Your task to perform on an android device: Open accessibility settings Image 0: 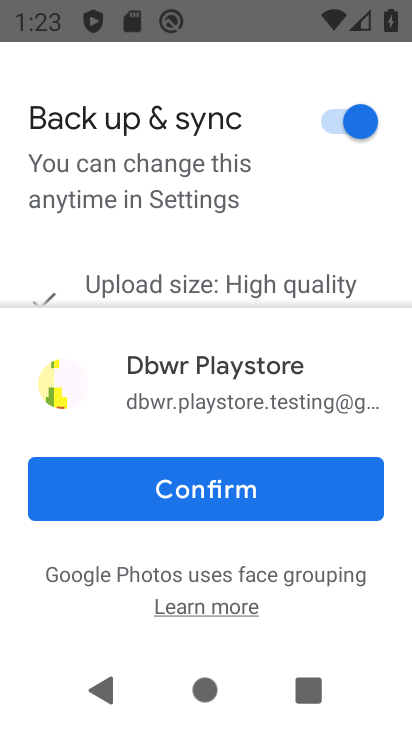
Step 0: press back button
Your task to perform on an android device: Open accessibility settings Image 1: 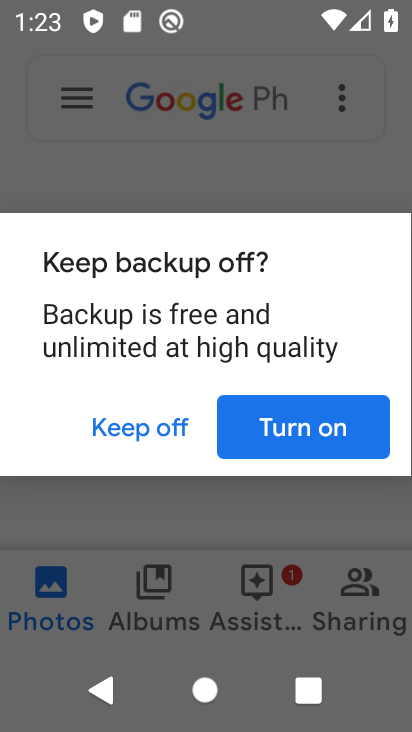
Step 1: press back button
Your task to perform on an android device: Open accessibility settings Image 2: 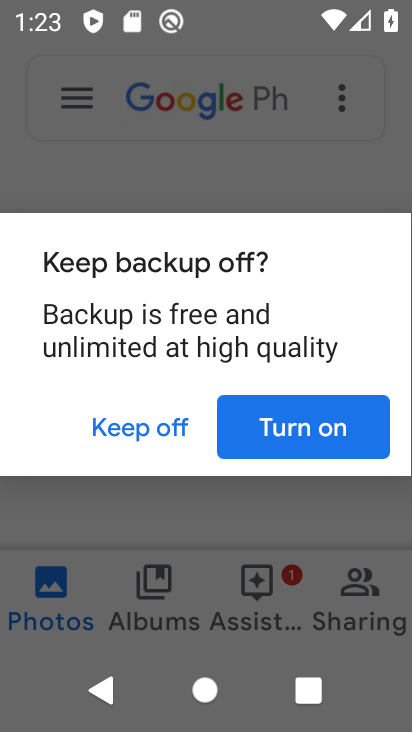
Step 2: press home button
Your task to perform on an android device: Open accessibility settings Image 3: 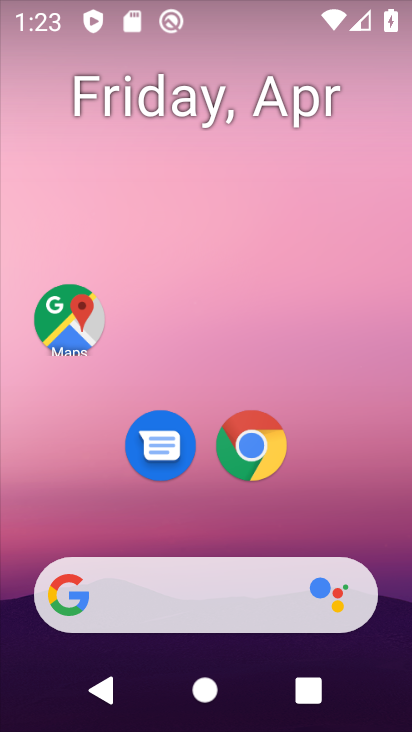
Step 3: drag from (219, 450) to (252, 84)
Your task to perform on an android device: Open accessibility settings Image 4: 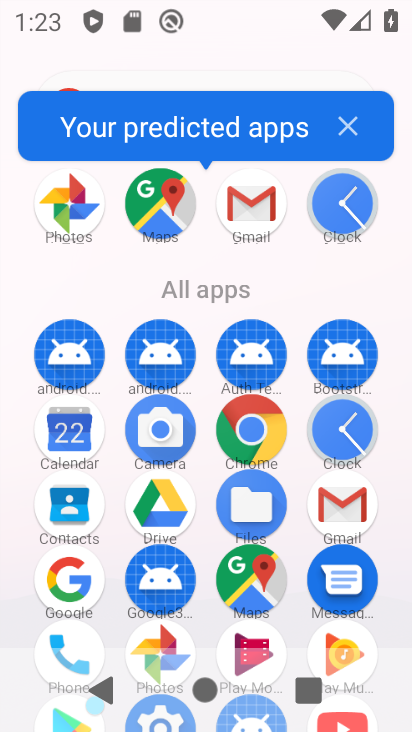
Step 4: drag from (155, 594) to (227, 138)
Your task to perform on an android device: Open accessibility settings Image 5: 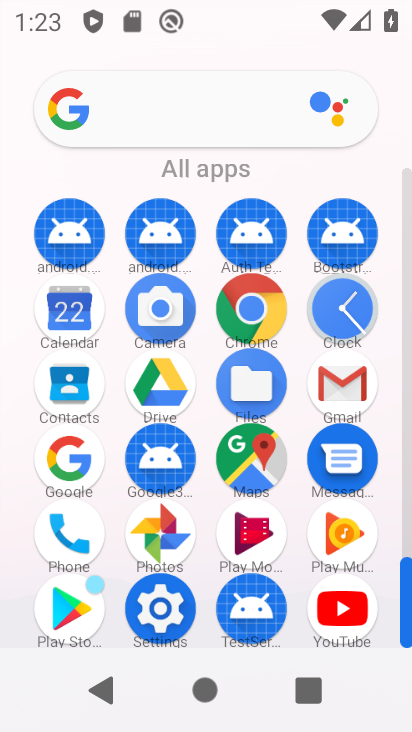
Step 5: click (160, 609)
Your task to perform on an android device: Open accessibility settings Image 6: 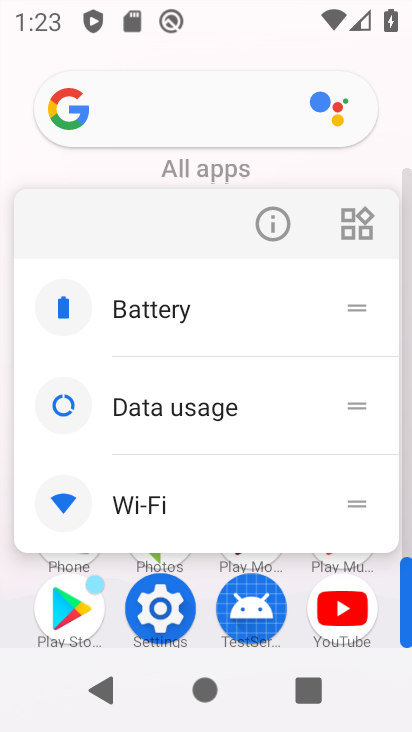
Step 6: click (160, 621)
Your task to perform on an android device: Open accessibility settings Image 7: 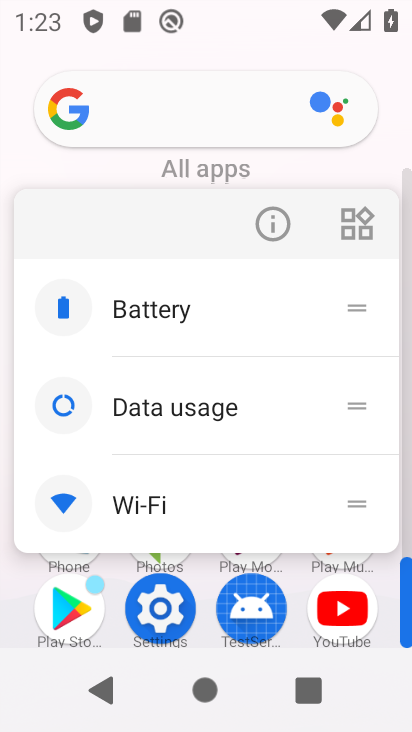
Step 7: click (172, 604)
Your task to perform on an android device: Open accessibility settings Image 8: 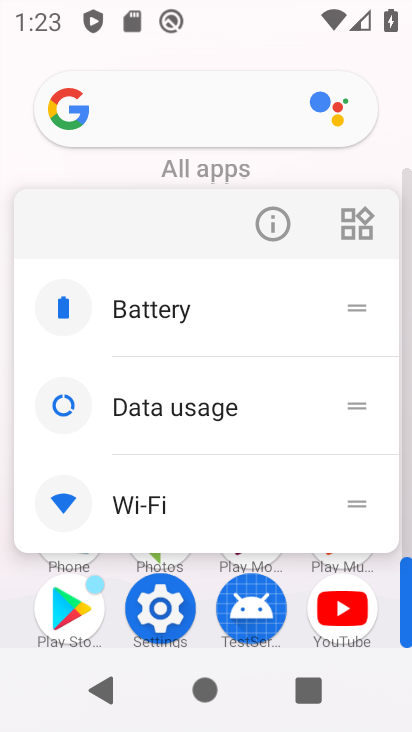
Step 8: click (176, 597)
Your task to perform on an android device: Open accessibility settings Image 9: 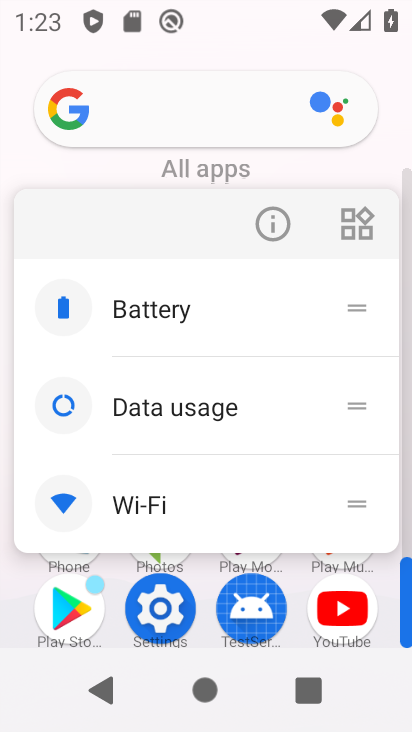
Step 9: click (171, 596)
Your task to perform on an android device: Open accessibility settings Image 10: 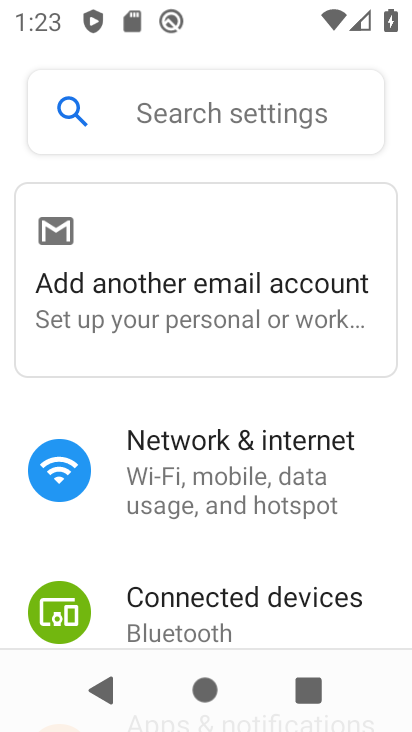
Step 10: drag from (235, 551) to (281, 117)
Your task to perform on an android device: Open accessibility settings Image 11: 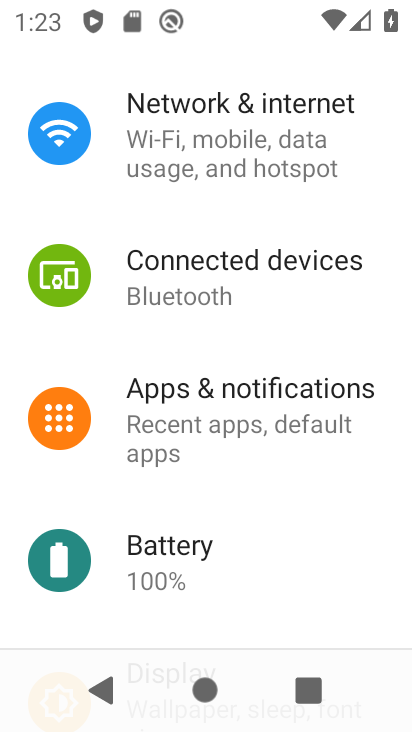
Step 11: drag from (234, 565) to (311, 130)
Your task to perform on an android device: Open accessibility settings Image 12: 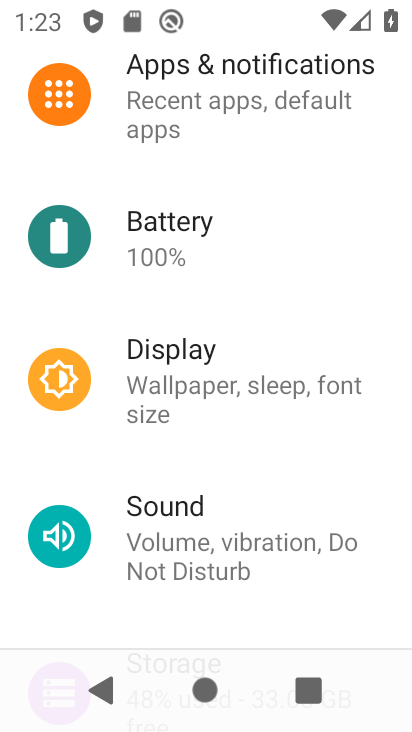
Step 12: drag from (218, 536) to (305, 73)
Your task to perform on an android device: Open accessibility settings Image 13: 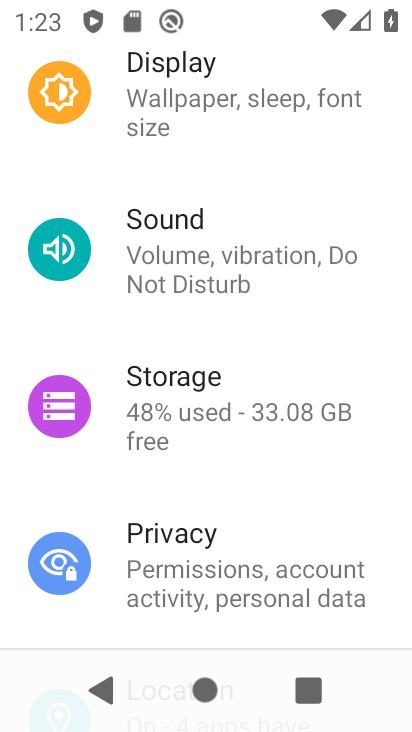
Step 13: drag from (212, 591) to (317, 86)
Your task to perform on an android device: Open accessibility settings Image 14: 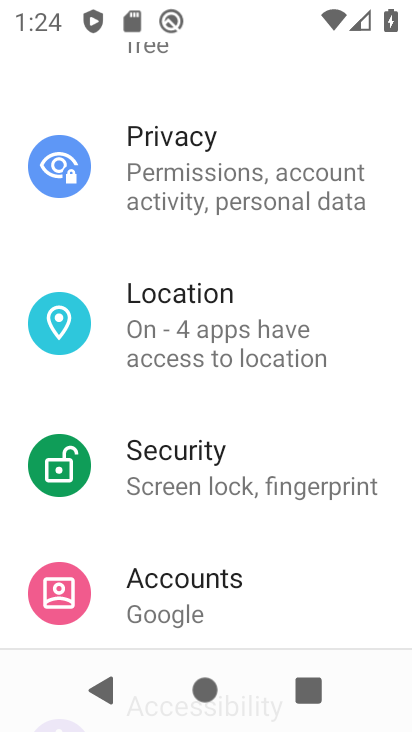
Step 14: drag from (218, 572) to (310, 124)
Your task to perform on an android device: Open accessibility settings Image 15: 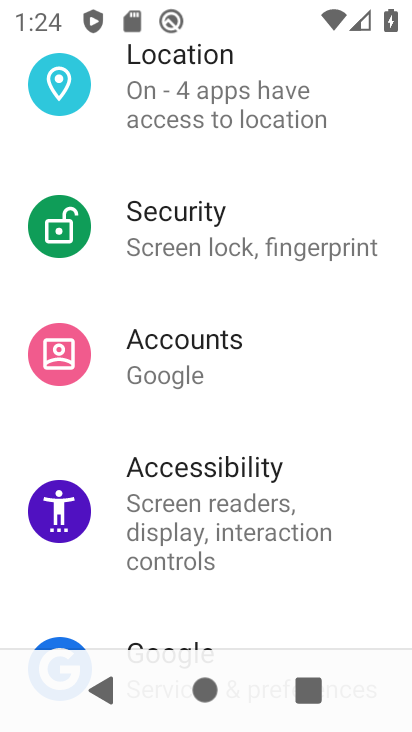
Step 15: click (201, 493)
Your task to perform on an android device: Open accessibility settings Image 16: 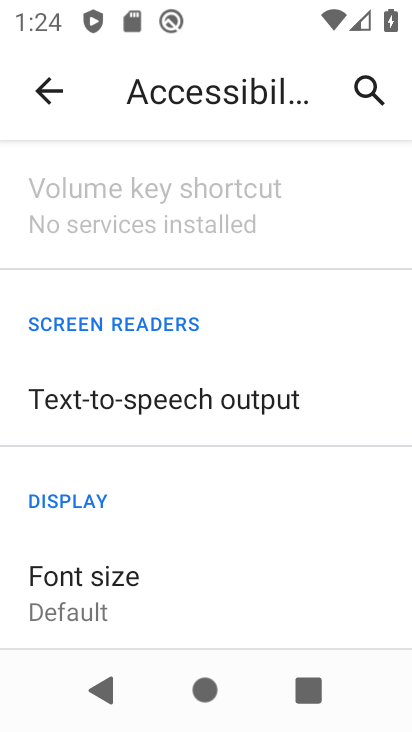
Step 16: task complete